Your task to perform on an android device: turn on data saver in the chrome app Image 0: 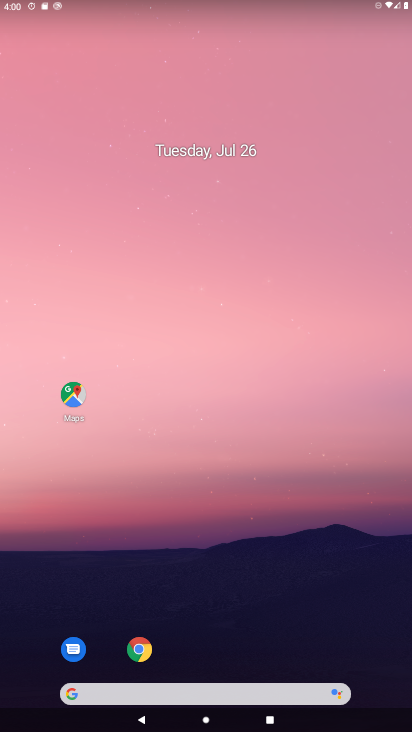
Step 0: drag from (319, 633) to (194, 16)
Your task to perform on an android device: turn on data saver in the chrome app Image 1: 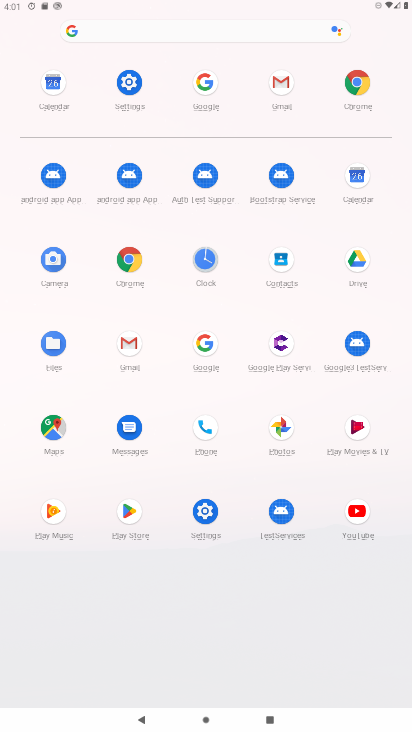
Step 1: click (121, 260)
Your task to perform on an android device: turn on data saver in the chrome app Image 2: 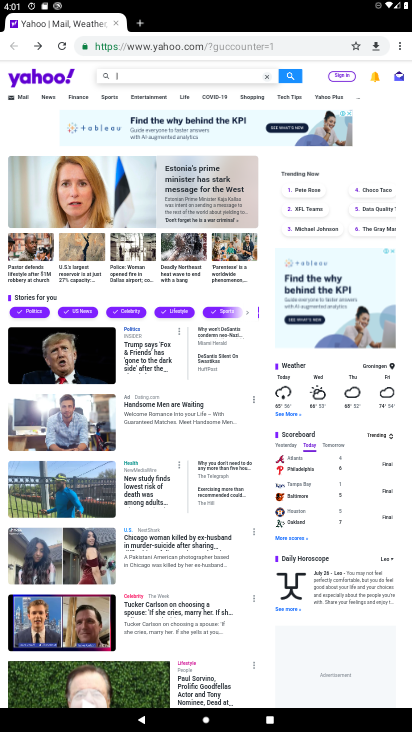
Step 2: click (401, 48)
Your task to perform on an android device: turn on data saver in the chrome app Image 3: 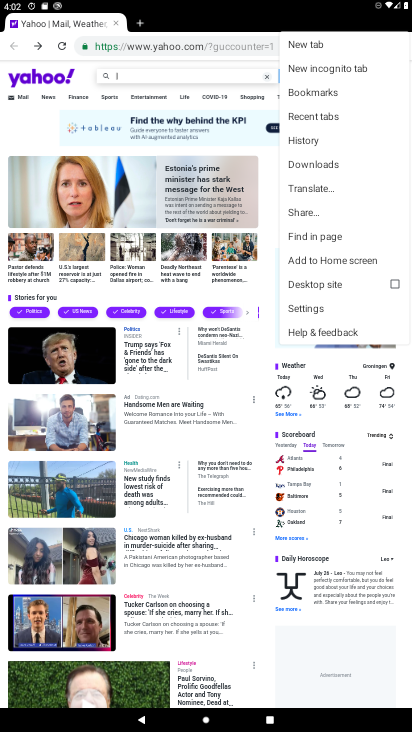
Step 3: click (315, 309)
Your task to perform on an android device: turn on data saver in the chrome app Image 4: 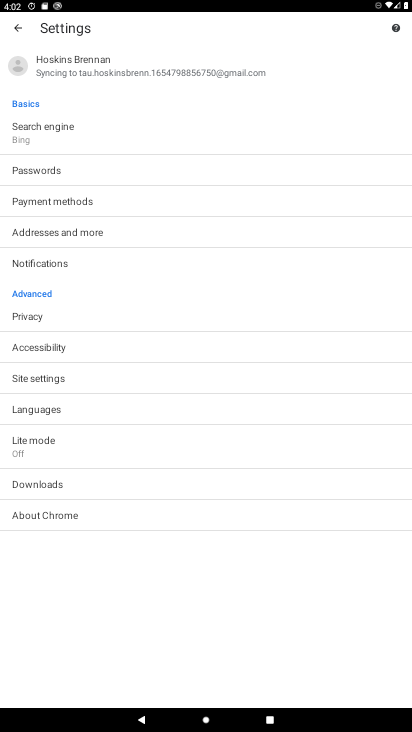
Step 4: click (37, 444)
Your task to perform on an android device: turn on data saver in the chrome app Image 5: 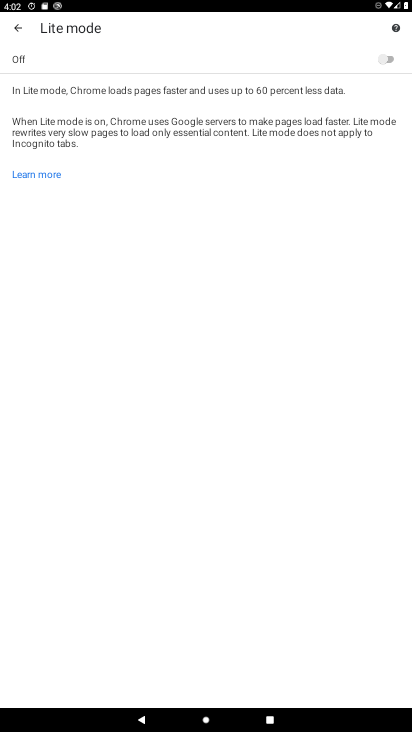
Step 5: click (389, 65)
Your task to perform on an android device: turn on data saver in the chrome app Image 6: 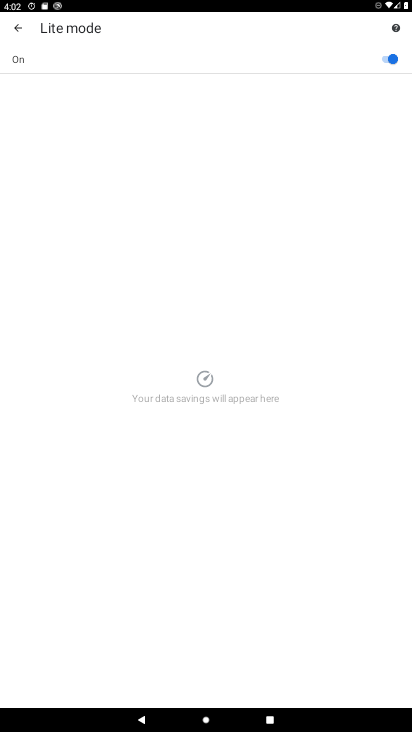
Step 6: task complete